Your task to perform on an android device: add a label to a message in the gmail app Image 0: 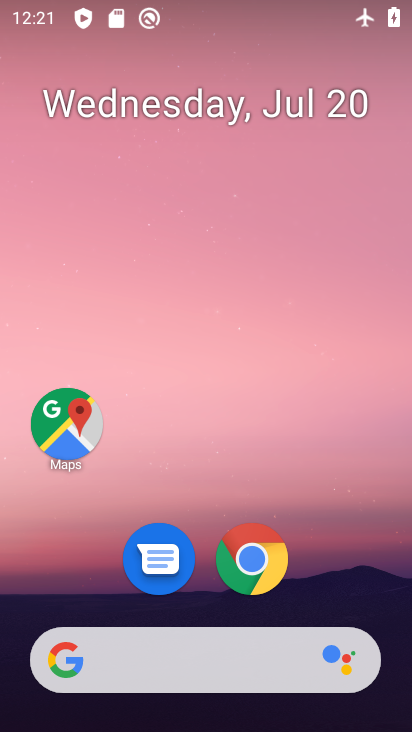
Step 0: drag from (367, 585) to (373, 130)
Your task to perform on an android device: add a label to a message in the gmail app Image 1: 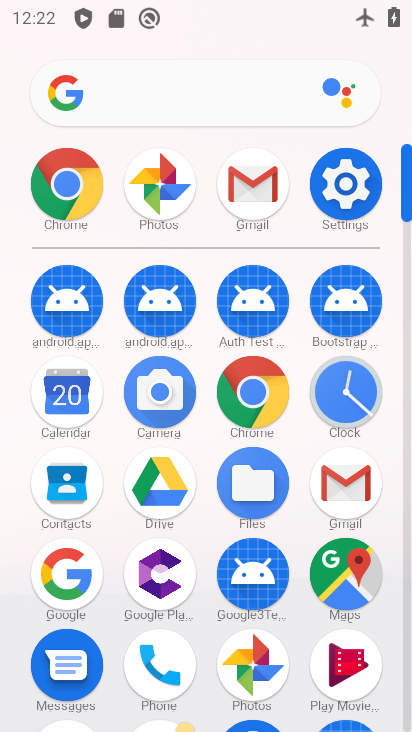
Step 1: click (263, 185)
Your task to perform on an android device: add a label to a message in the gmail app Image 2: 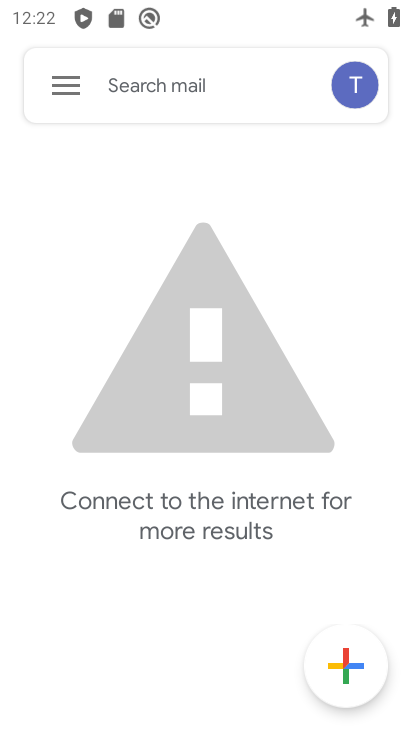
Step 2: click (72, 84)
Your task to perform on an android device: add a label to a message in the gmail app Image 3: 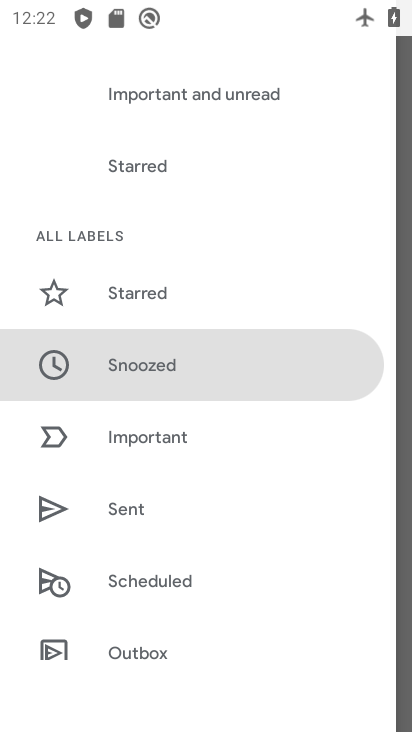
Step 3: drag from (258, 251) to (267, 391)
Your task to perform on an android device: add a label to a message in the gmail app Image 4: 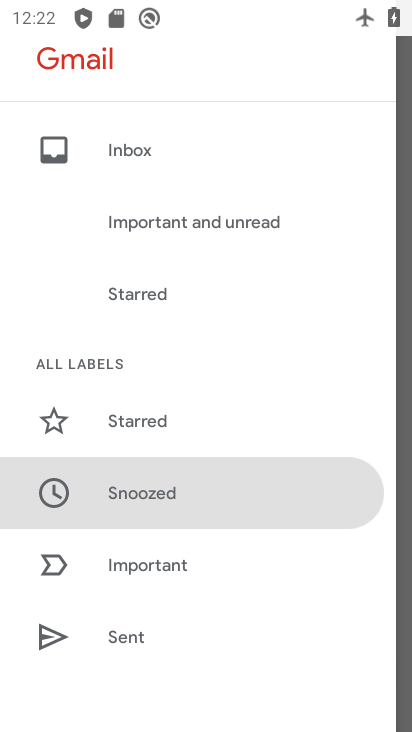
Step 4: click (161, 146)
Your task to perform on an android device: add a label to a message in the gmail app Image 5: 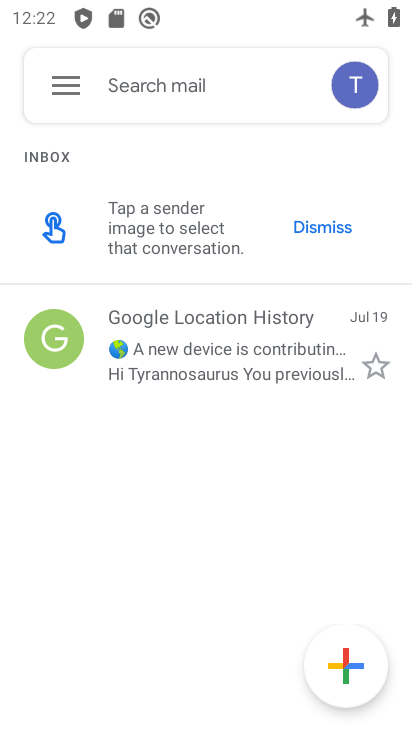
Step 5: click (237, 348)
Your task to perform on an android device: add a label to a message in the gmail app Image 6: 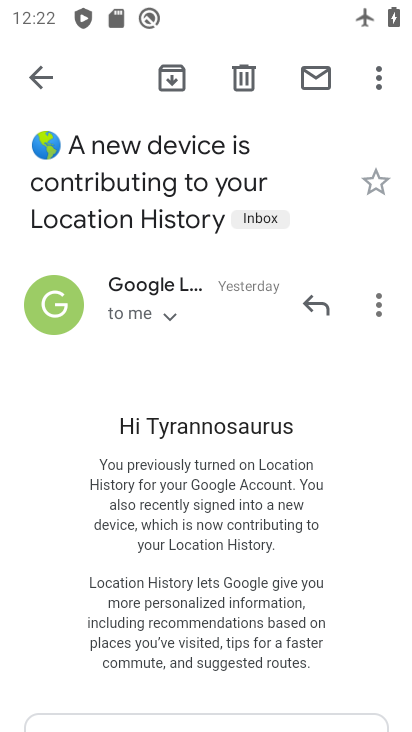
Step 6: click (268, 219)
Your task to perform on an android device: add a label to a message in the gmail app Image 7: 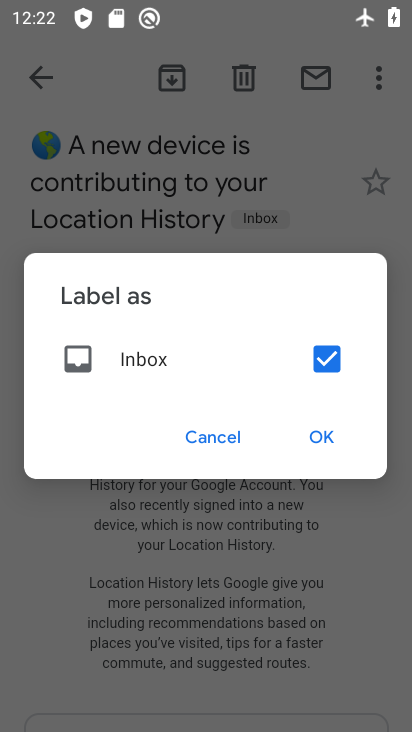
Step 7: task complete